Your task to perform on an android device: Go to Reddit.com Image 0: 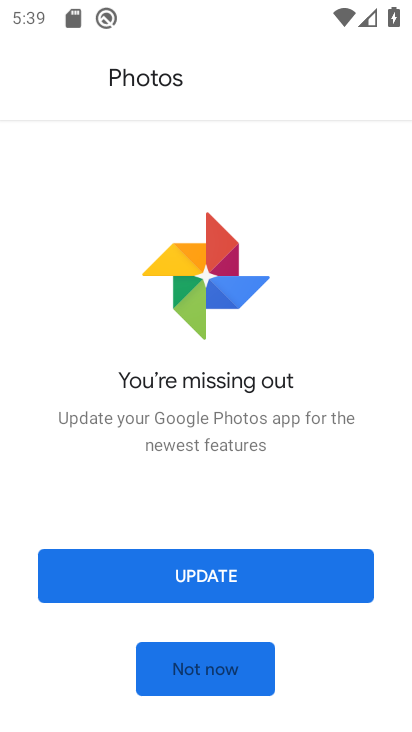
Step 0: click (203, 659)
Your task to perform on an android device: Go to Reddit.com Image 1: 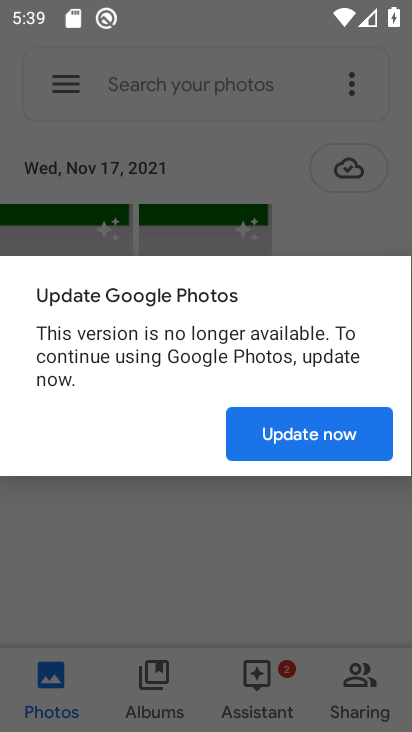
Step 1: press home button
Your task to perform on an android device: Go to Reddit.com Image 2: 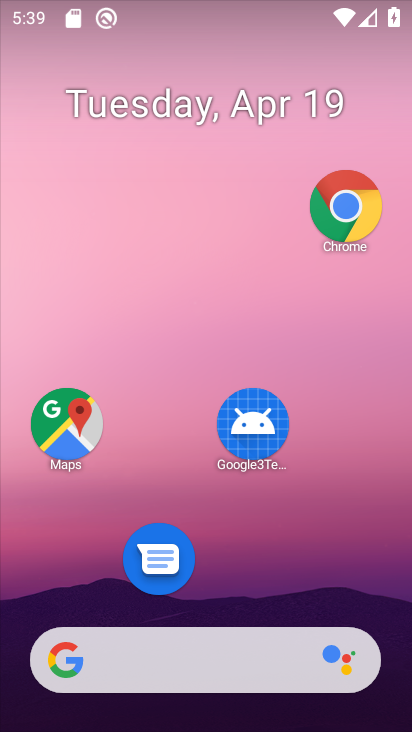
Step 2: drag from (276, 667) to (353, 0)
Your task to perform on an android device: Go to Reddit.com Image 3: 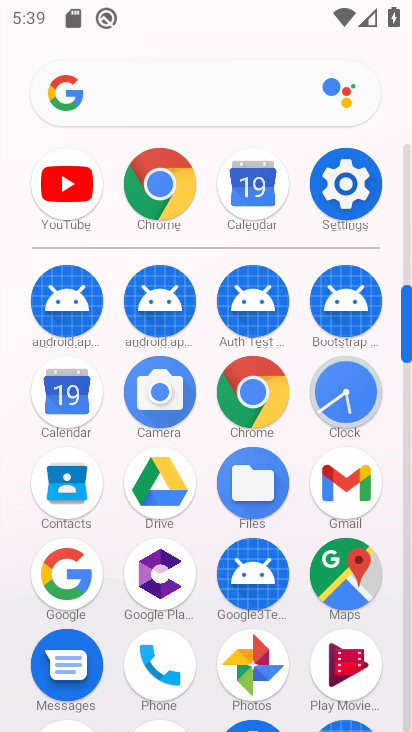
Step 3: click (249, 416)
Your task to perform on an android device: Go to Reddit.com Image 4: 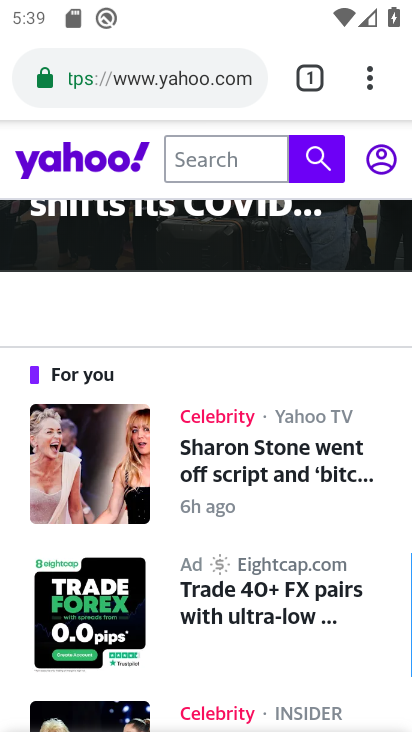
Step 4: click (160, 77)
Your task to perform on an android device: Go to Reddit.com Image 5: 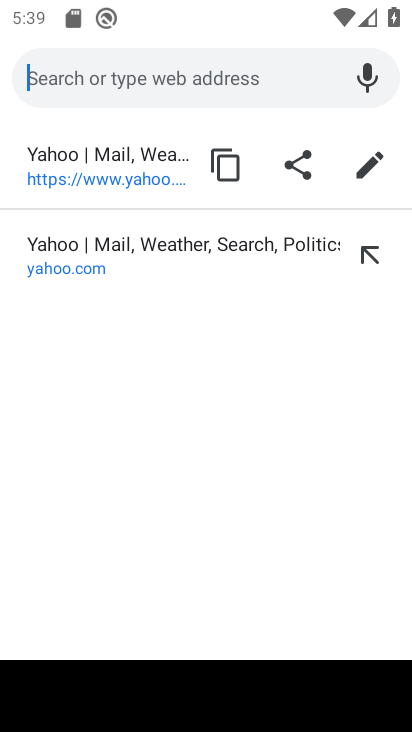
Step 5: type "reddit.com"
Your task to perform on an android device: Go to Reddit.com Image 6: 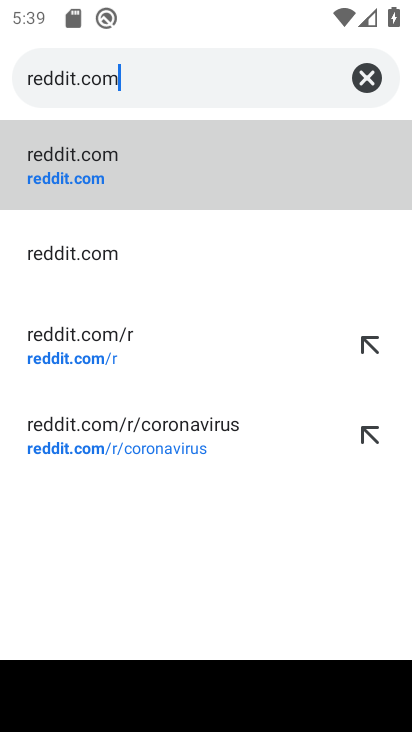
Step 6: click (169, 157)
Your task to perform on an android device: Go to Reddit.com Image 7: 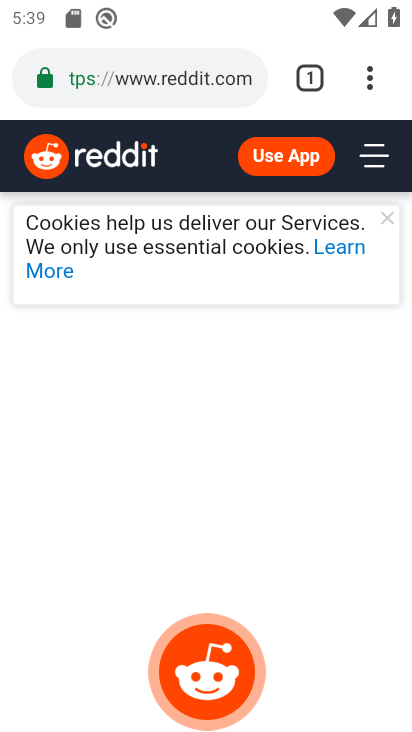
Step 7: task complete